Your task to perform on an android device: create a new album in the google photos Image 0: 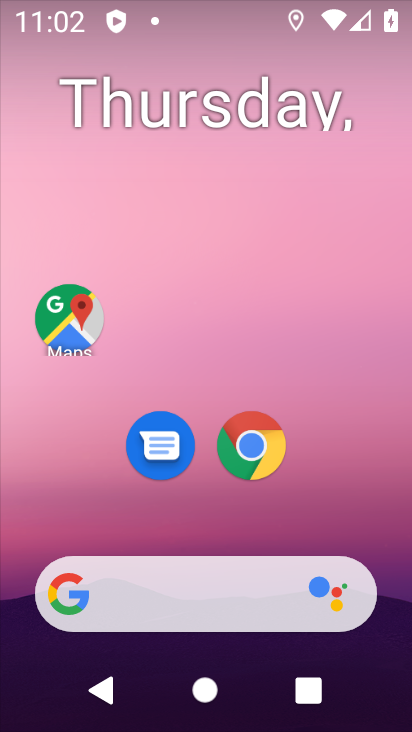
Step 0: drag from (401, 609) to (303, 114)
Your task to perform on an android device: create a new album in the google photos Image 1: 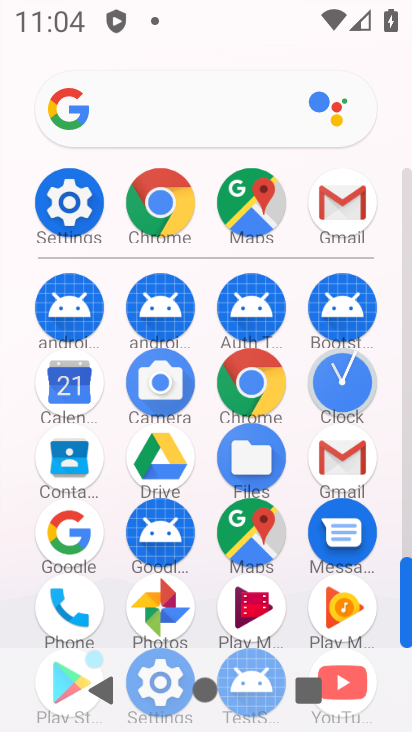
Step 1: click (148, 604)
Your task to perform on an android device: create a new album in the google photos Image 2: 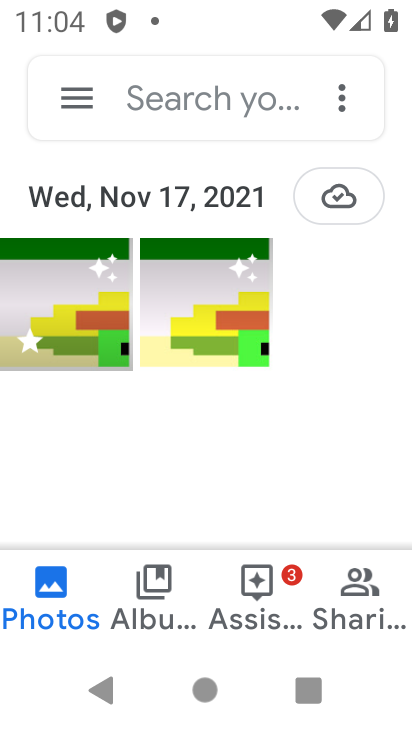
Step 2: click (55, 298)
Your task to perform on an android device: create a new album in the google photos Image 3: 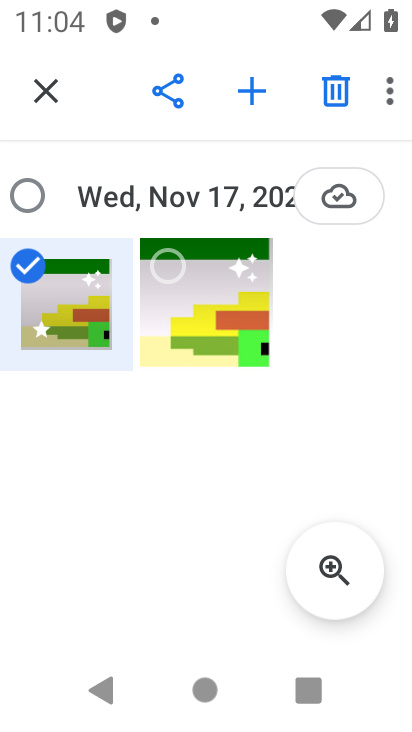
Step 3: click (254, 103)
Your task to perform on an android device: create a new album in the google photos Image 4: 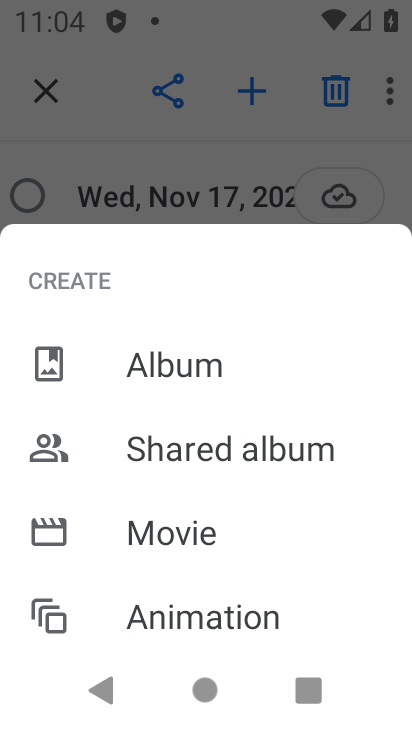
Step 4: click (157, 367)
Your task to perform on an android device: create a new album in the google photos Image 5: 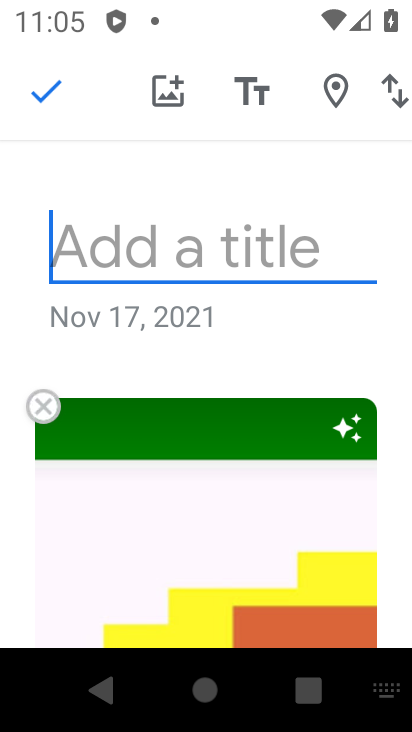
Step 5: type "tab"
Your task to perform on an android device: create a new album in the google photos Image 6: 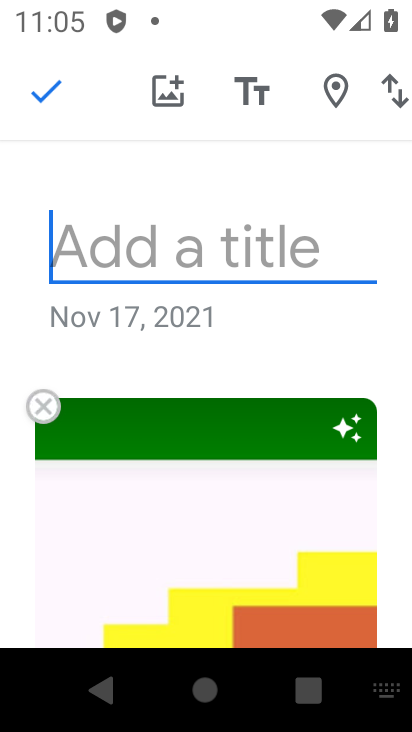
Step 6: click (47, 88)
Your task to perform on an android device: create a new album in the google photos Image 7: 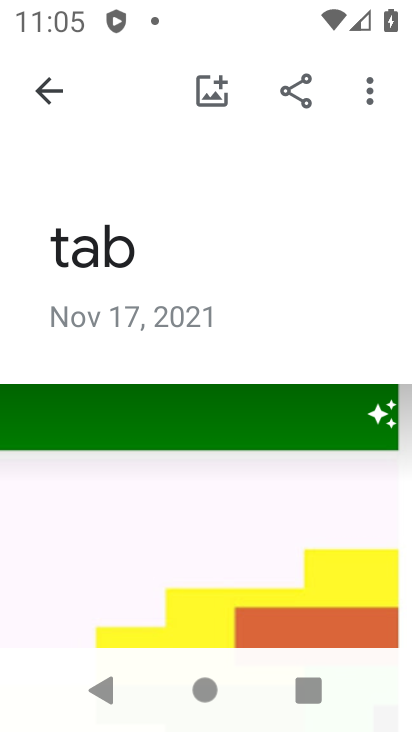
Step 7: task complete